Your task to perform on an android device: empty trash in google photos Image 0: 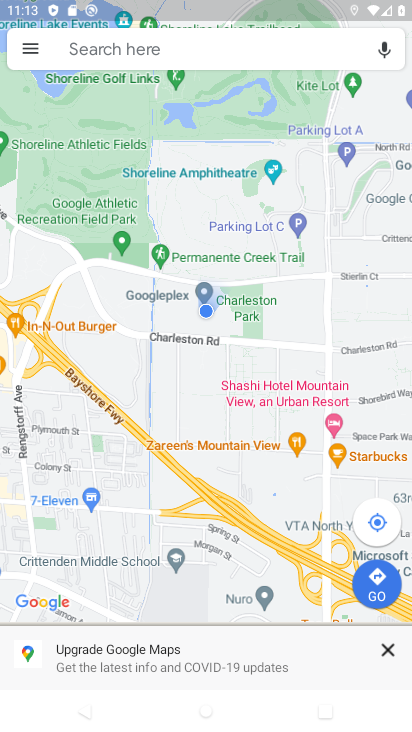
Step 0: press home button
Your task to perform on an android device: empty trash in google photos Image 1: 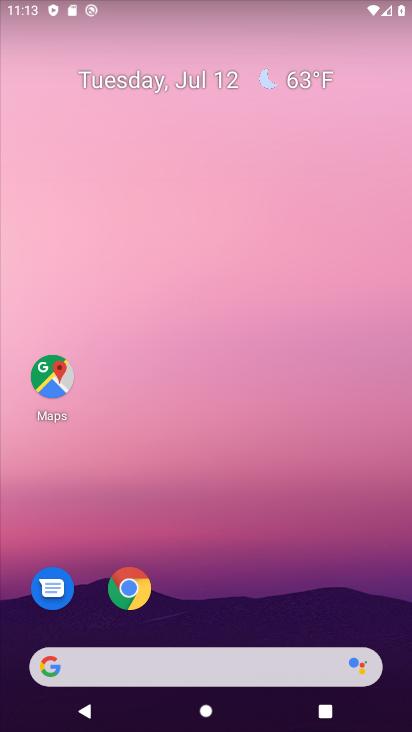
Step 1: drag from (22, 689) to (248, 184)
Your task to perform on an android device: empty trash in google photos Image 2: 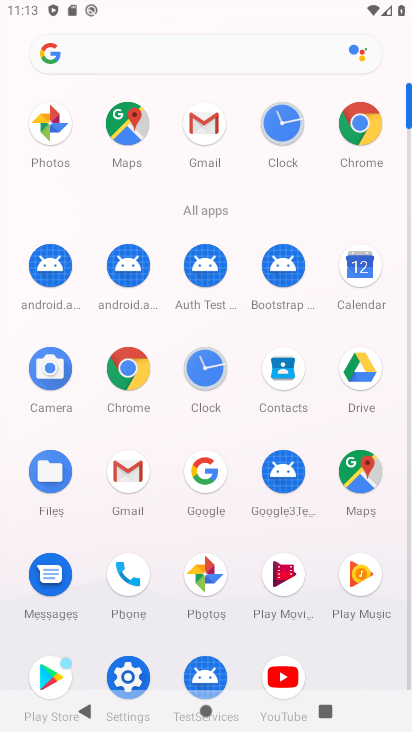
Step 2: click (196, 578)
Your task to perform on an android device: empty trash in google photos Image 3: 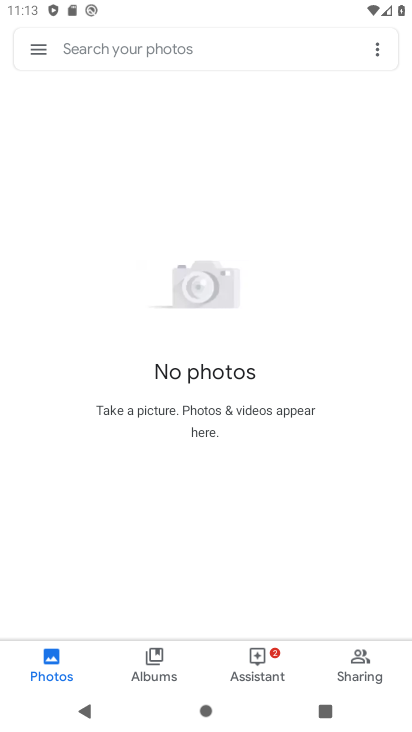
Step 3: click (33, 46)
Your task to perform on an android device: empty trash in google photos Image 4: 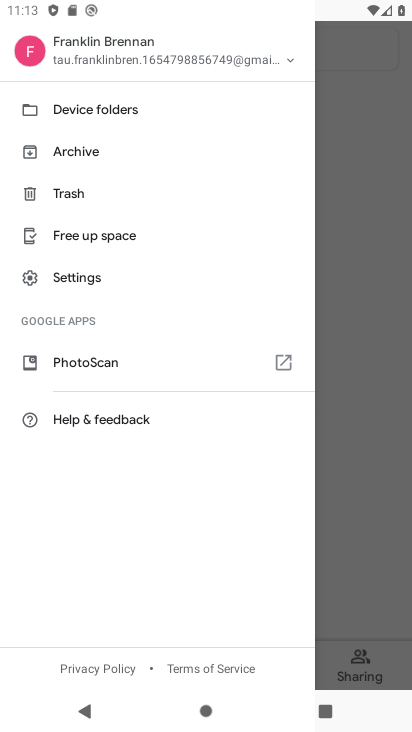
Step 4: click (69, 198)
Your task to perform on an android device: empty trash in google photos Image 5: 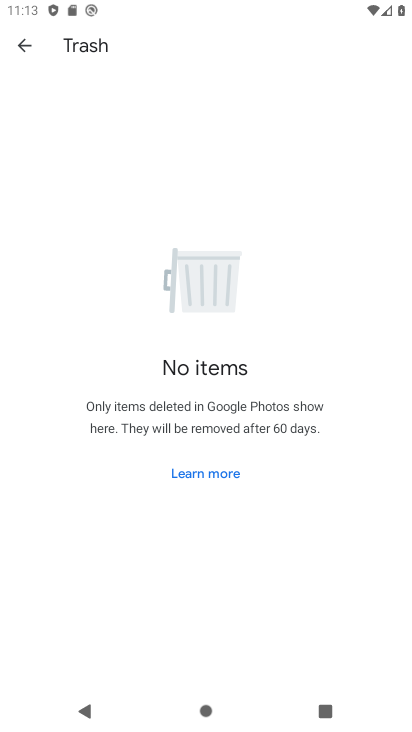
Step 5: task complete